Your task to perform on an android device: What is the news today? Image 0: 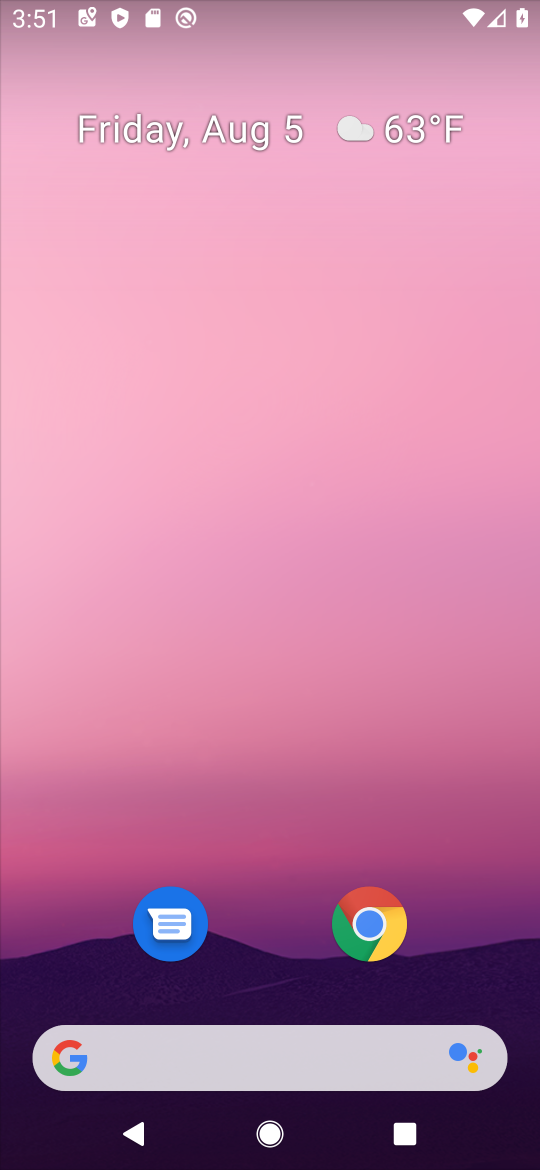
Step 0: drag from (287, 627) to (260, 165)
Your task to perform on an android device: What is the news today? Image 1: 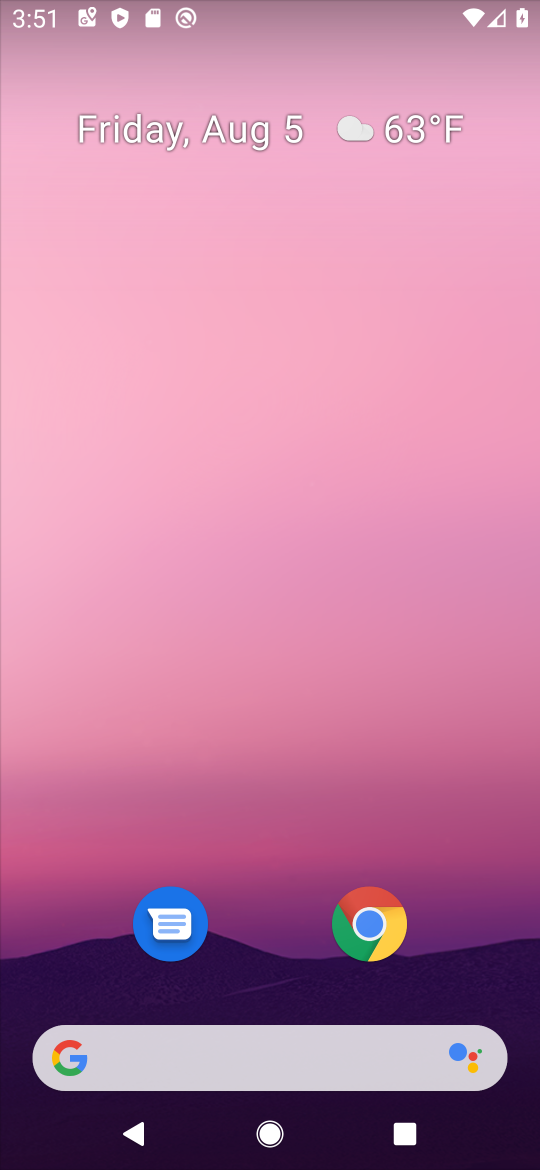
Step 1: drag from (283, 942) to (302, 184)
Your task to perform on an android device: What is the news today? Image 2: 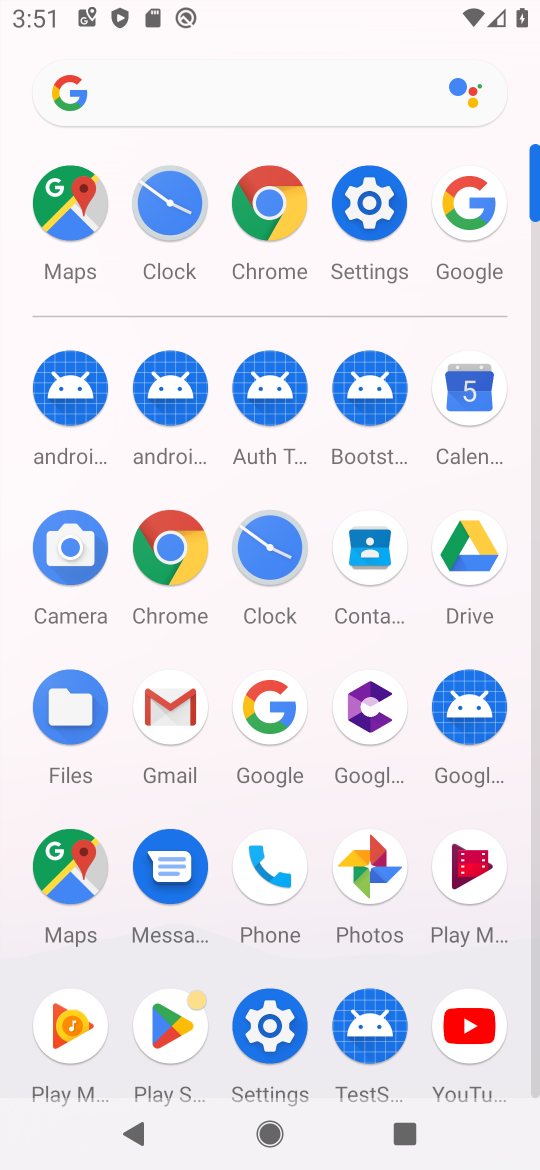
Step 2: click (285, 709)
Your task to perform on an android device: What is the news today? Image 3: 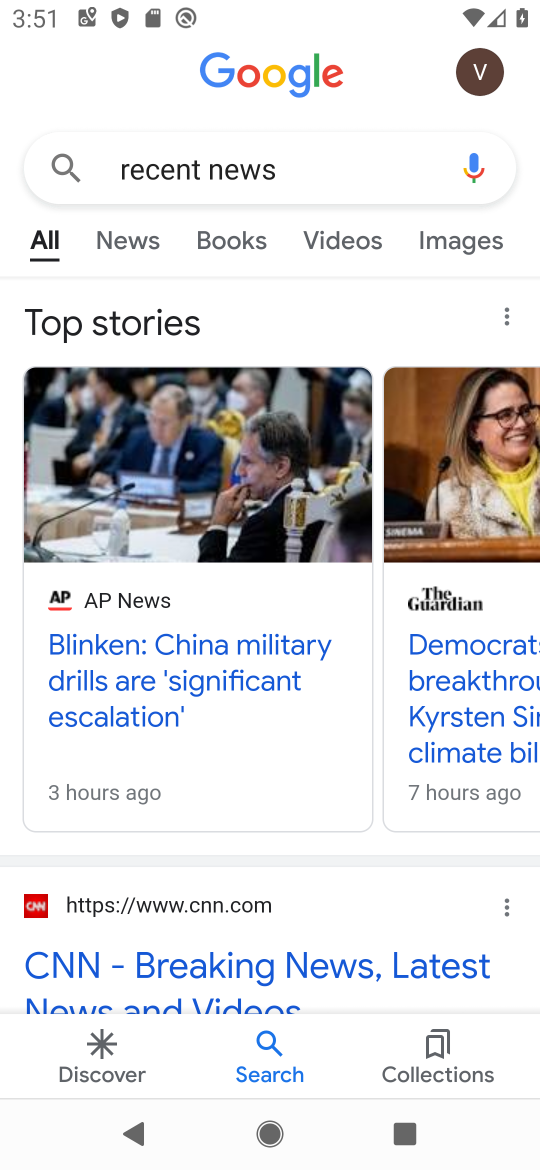
Step 3: task complete